Your task to perform on an android device: turn on notifications settings in the gmail app Image 0: 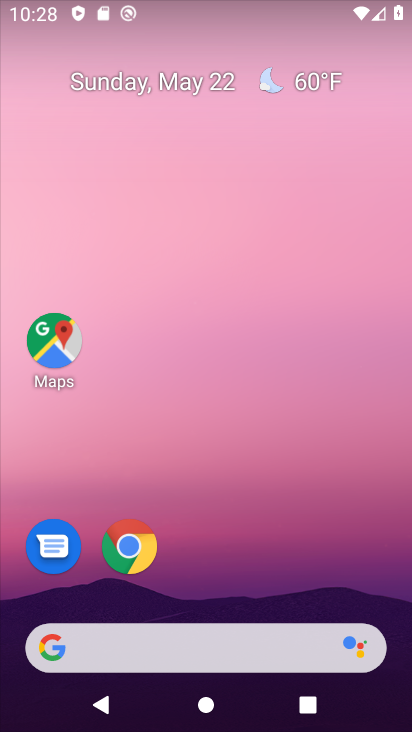
Step 0: drag from (218, 724) to (220, 131)
Your task to perform on an android device: turn on notifications settings in the gmail app Image 1: 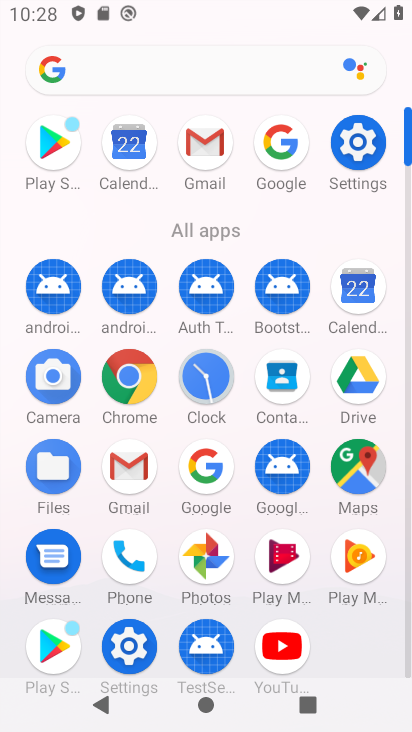
Step 1: click (211, 143)
Your task to perform on an android device: turn on notifications settings in the gmail app Image 2: 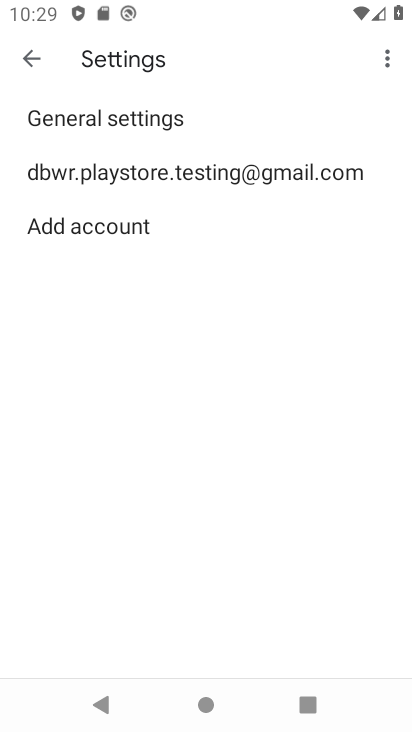
Step 2: click (203, 172)
Your task to perform on an android device: turn on notifications settings in the gmail app Image 3: 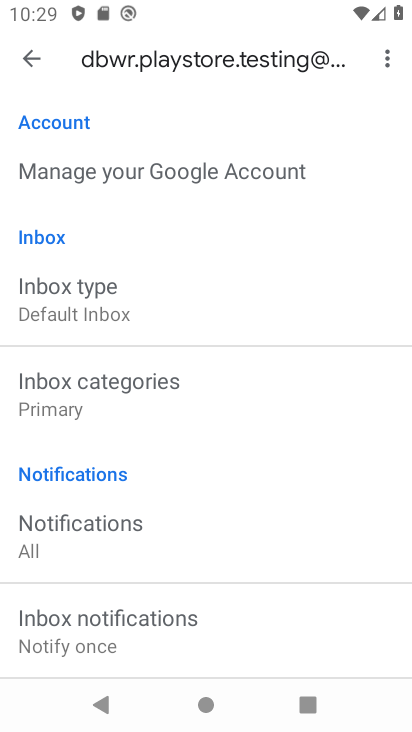
Step 3: task complete